Your task to perform on an android device: Open Android settings Image 0: 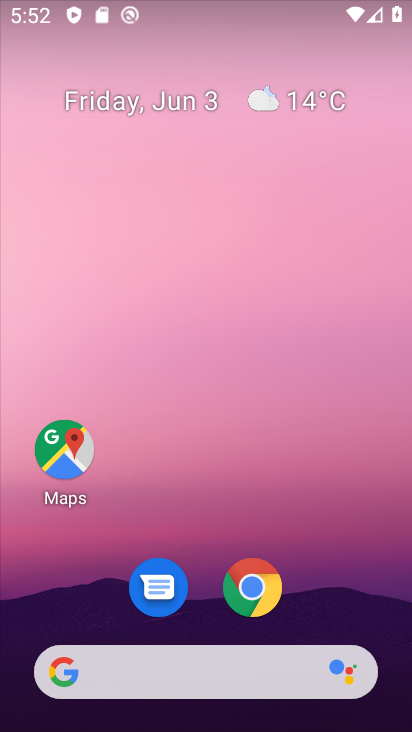
Step 0: drag from (356, 597) to (248, 43)
Your task to perform on an android device: Open Android settings Image 1: 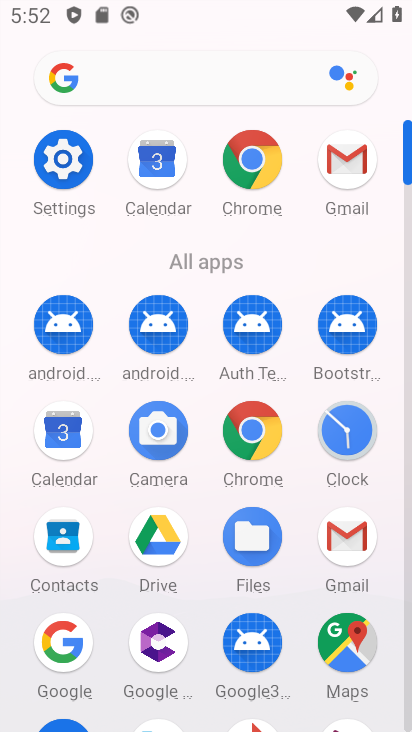
Step 1: drag from (9, 574) to (7, 244)
Your task to perform on an android device: Open Android settings Image 2: 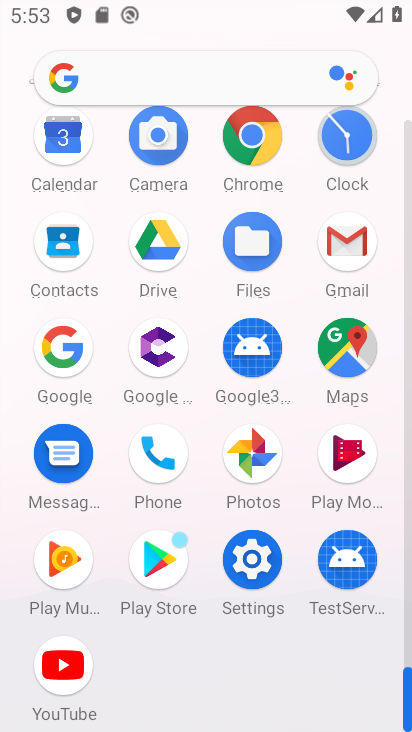
Step 2: click (251, 556)
Your task to perform on an android device: Open Android settings Image 3: 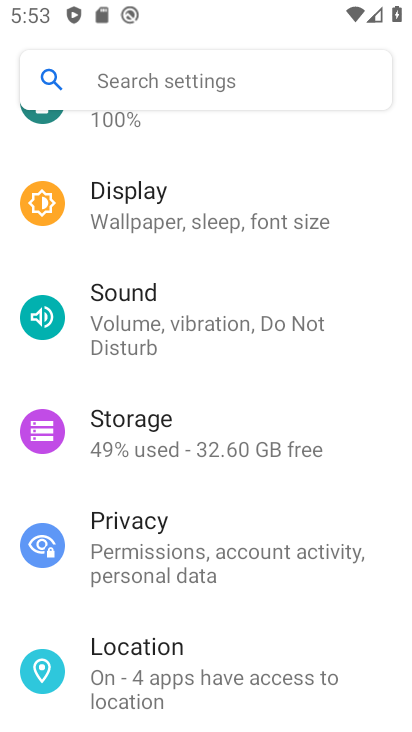
Step 3: task complete